Your task to perform on an android device: turn on priority inbox in the gmail app Image 0: 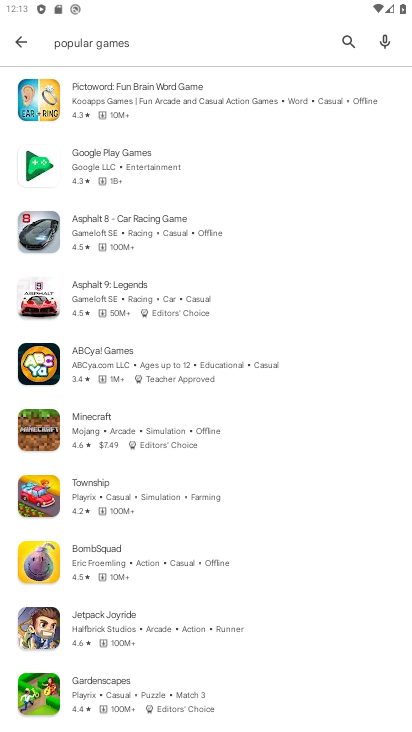
Step 0: press home button
Your task to perform on an android device: turn on priority inbox in the gmail app Image 1: 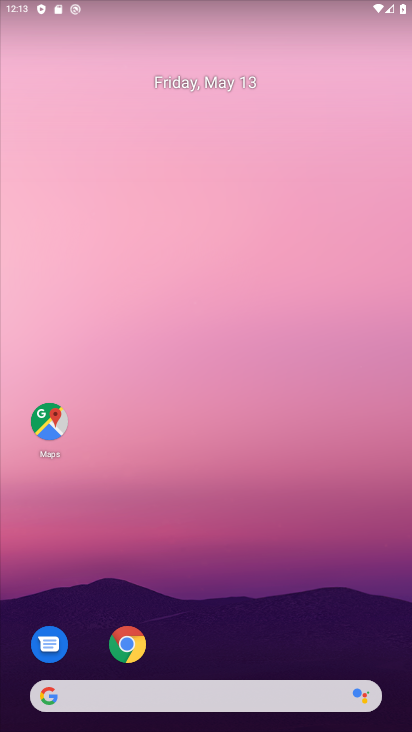
Step 1: drag from (259, 622) to (236, 84)
Your task to perform on an android device: turn on priority inbox in the gmail app Image 2: 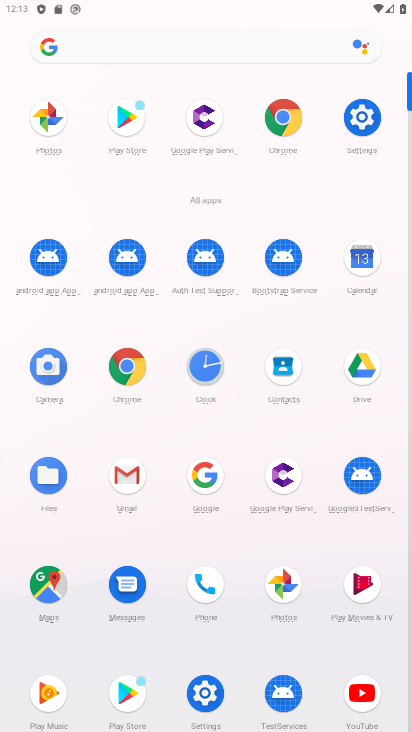
Step 2: click (128, 475)
Your task to perform on an android device: turn on priority inbox in the gmail app Image 3: 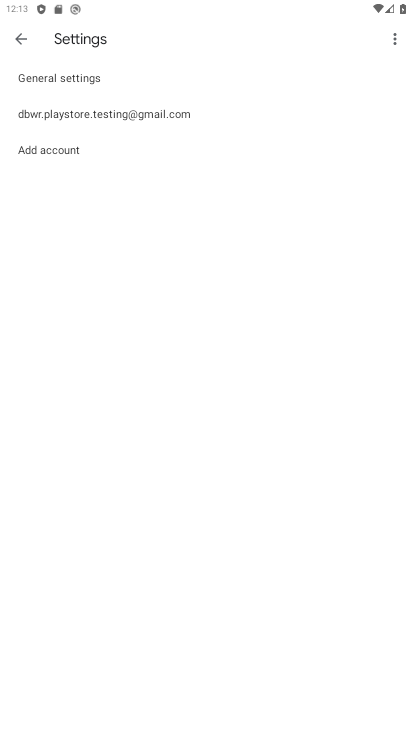
Step 3: click (123, 116)
Your task to perform on an android device: turn on priority inbox in the gmail app Image 4: 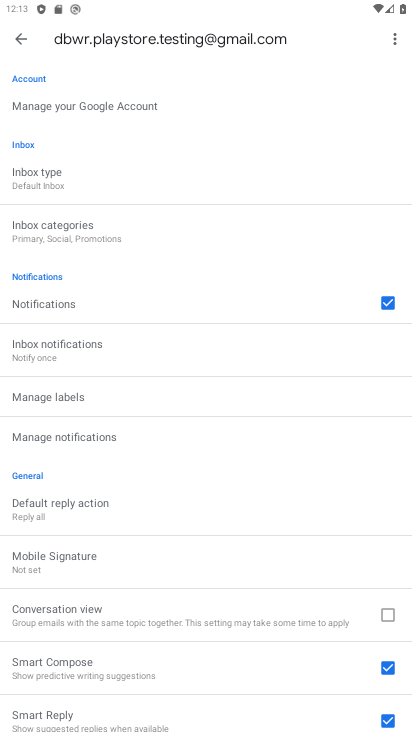
Step 4: click (72, 184)
Your task to perform on an android device: turn on priority inbox in the gmail app Image 5: 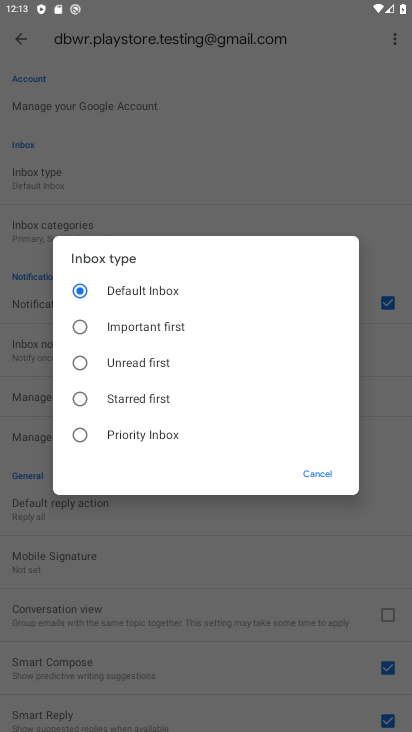
Step 5: click (76, 434)
Your task to perform on an android device: turn on priority inbox in the gmail app Image 6: 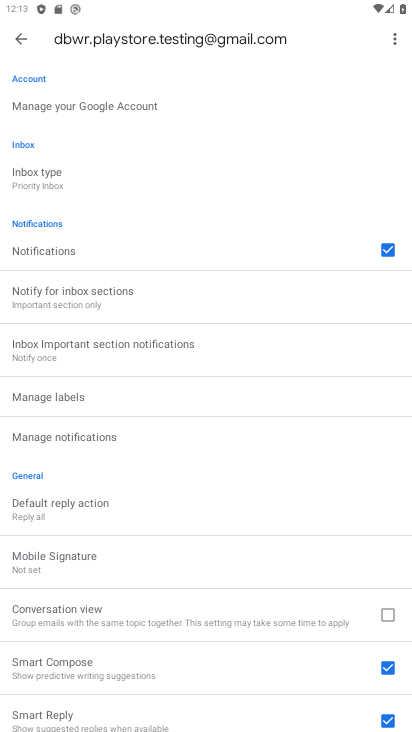
Step 6: task complete